Your task to perform on an android device: Go to settings Image 0: 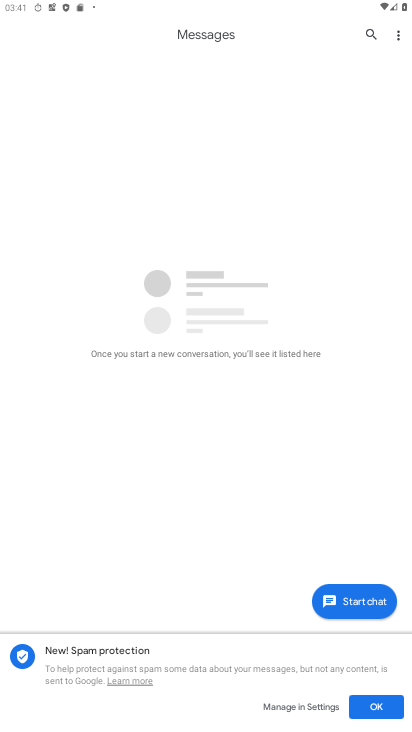
Step 0: press home button
Your task to perform on an android device: Go to settings Image 1: 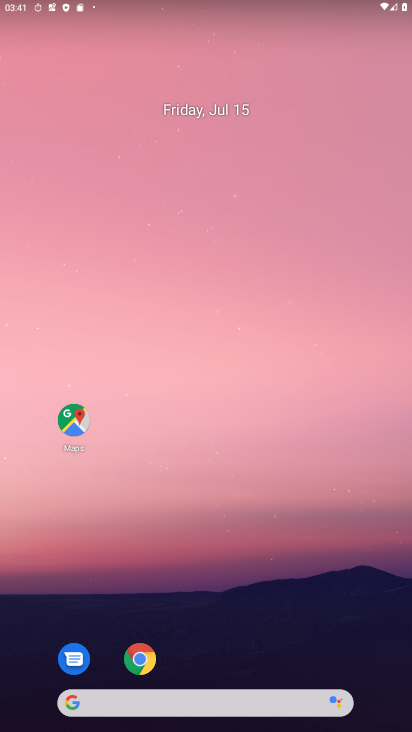
Step 1: drag from (312, 609) to (344, 29)
Your task to perform on an android device: Go to settings Image 2: 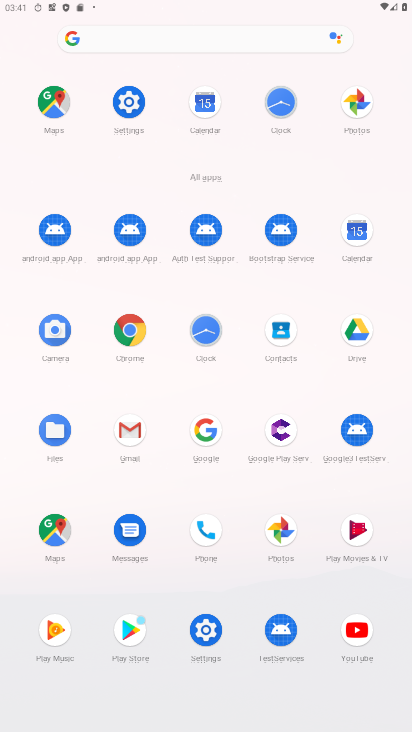
Step 2: click (201, 634)
Your task to perform on an android device: Go to settings Image 3: 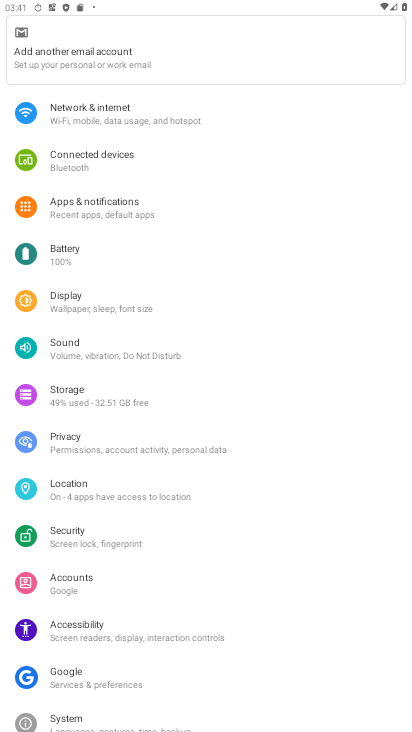
Step 3: task complete